Your task to perform on an android device: Search for pizza restaurants on Maps Image 0: 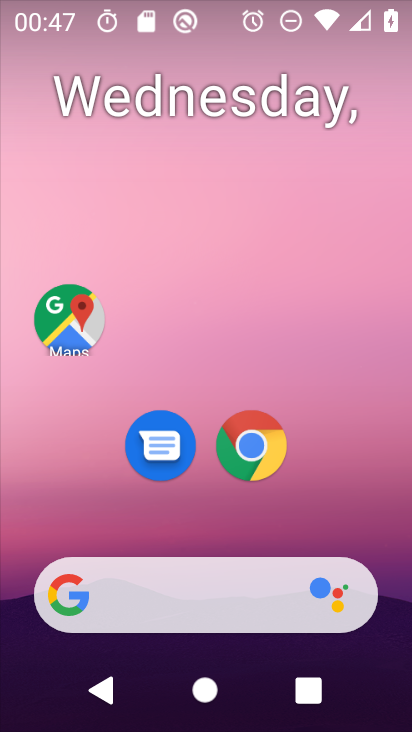
Step 0: click (50, 322)
Your task to perform on an android device: Search for pizza restaurants on Maps Image 1: 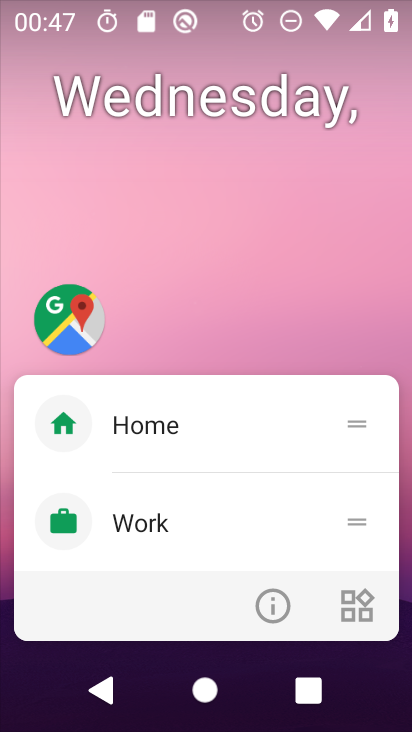
Step 1: click (53, 324)
Your task to perform on an android device: Search for pizza restaurants on Maps Image 2: 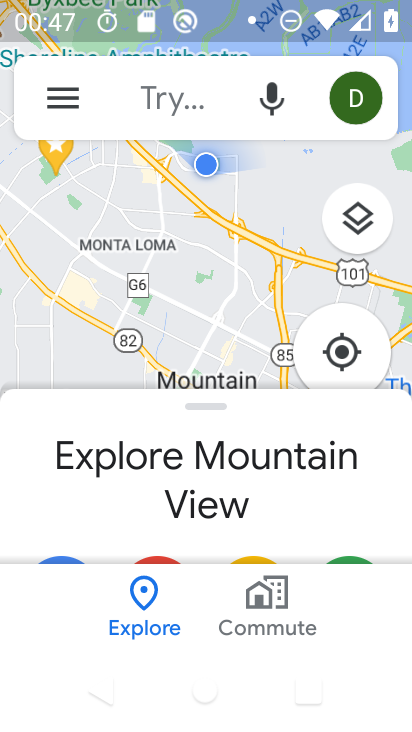
Step 2: click (157, 99)
Your task to perform on an android device: Search for pizza restaurants on Maps Image 3: 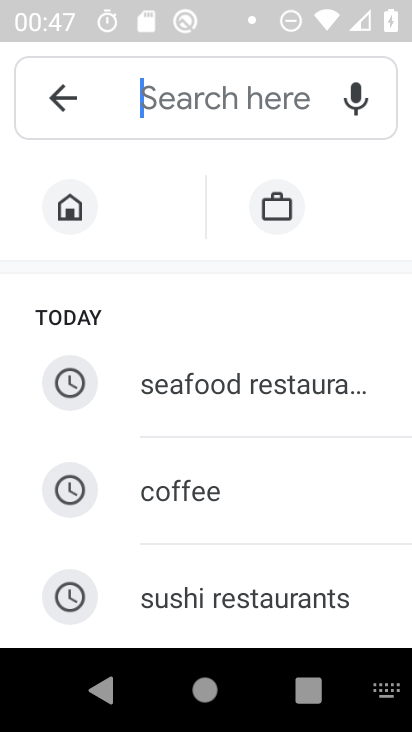
Step 3: type "pizza restaurant"
Your task to perform on an android device: Search for pizza restaurants on Maps Image 4: 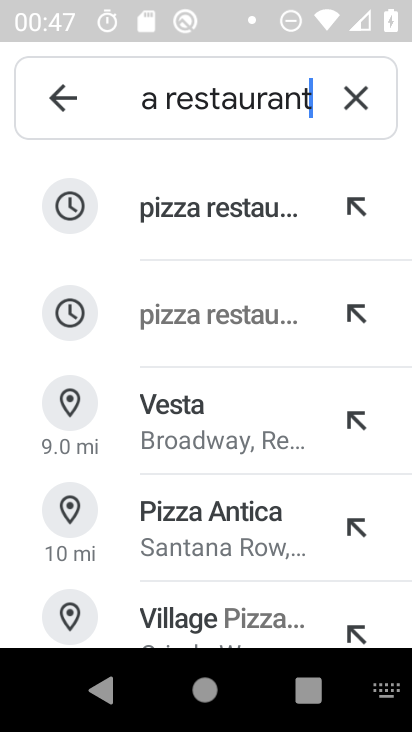
Step 4: click (241, 191)
Your task to perform on an android device: Search for pizza restaurants on Maps Image 5: 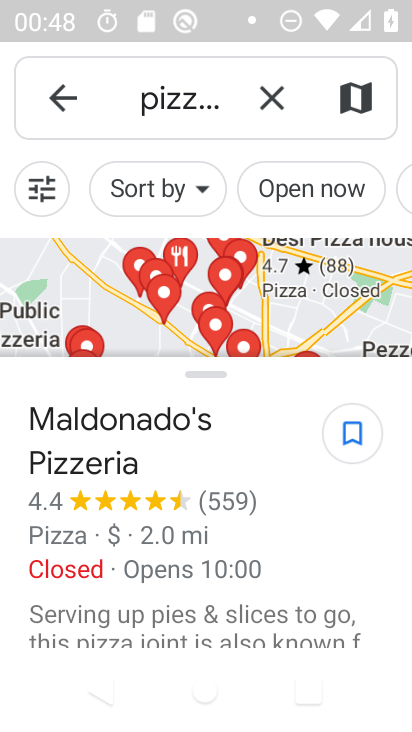
Step 5: task complete